Your task to perform on an android device: star an email in the gmail app Image 0: 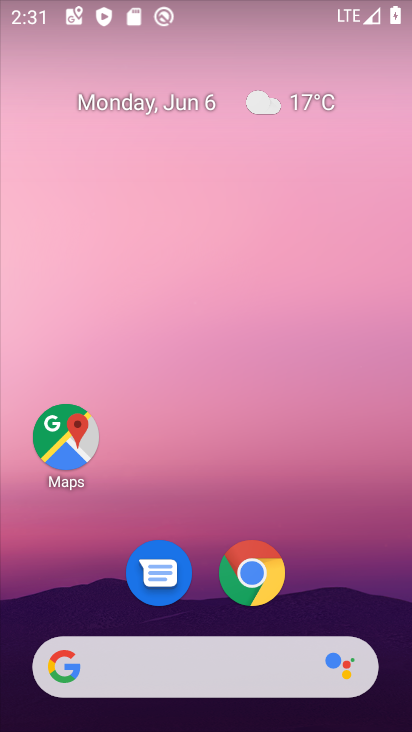
Step 0: drag from (380, 589) to (378, 199)
Your task to perform on an android device: star an email in the gmail app Image 1: 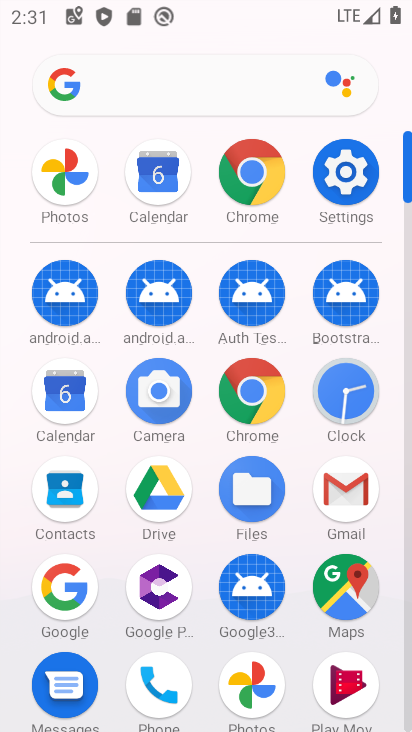
Step 1: click (351, 488)
Your task to perform on an android device: star an email in the gmail app Image 2: 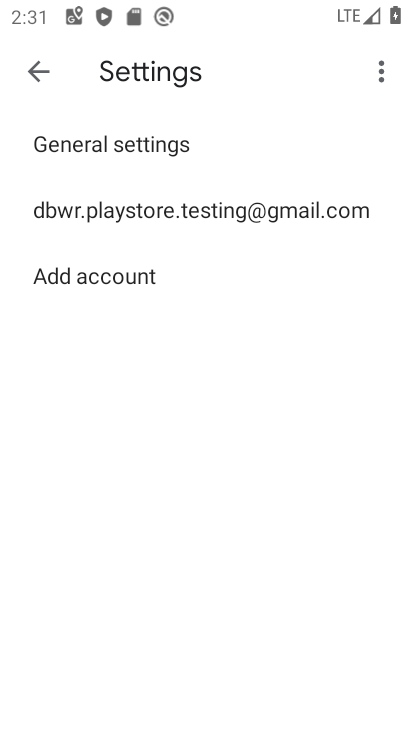
Step 2: press back button
Your task to perform on an android device: star an email in the gmail app Image 3: 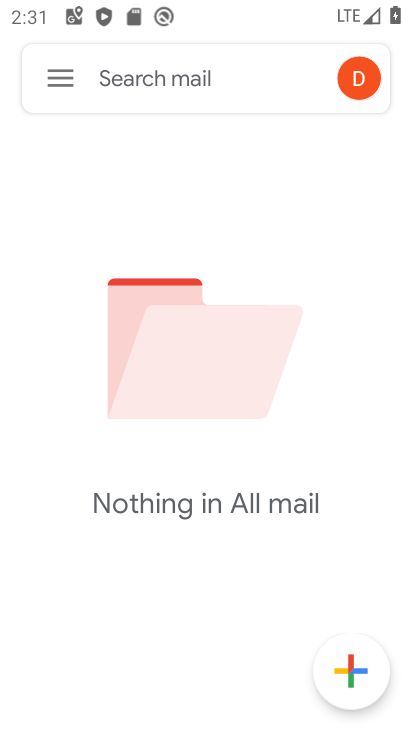
Step 3: click (60, 79)
Your task to perform on an android device: star an email in the gmail app Image 4: 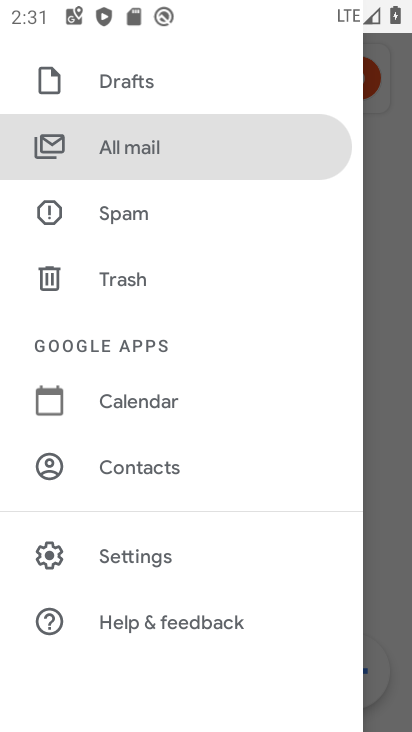
Step 4: drag from (248, 238) to (256, 351)
Your task to perform on an android device: star an email in the gmail app Image 5: 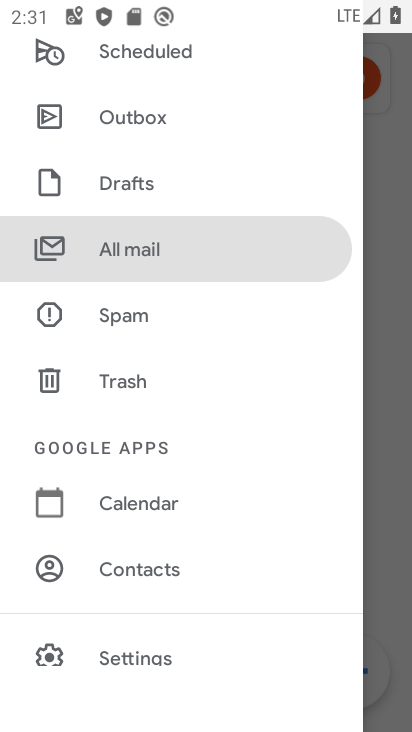
Step 5: drag from (264, 108) to (250, 282)
Your task to perform on an android device: star an email in the gmail app Image 6: 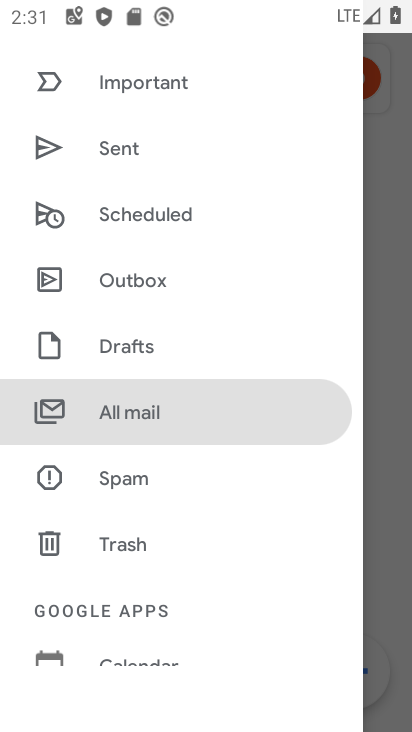
Step 6: drag from (258, 119) to (272, 272)
Your task to perform on an android device: star an email in the gmail app Image 7: 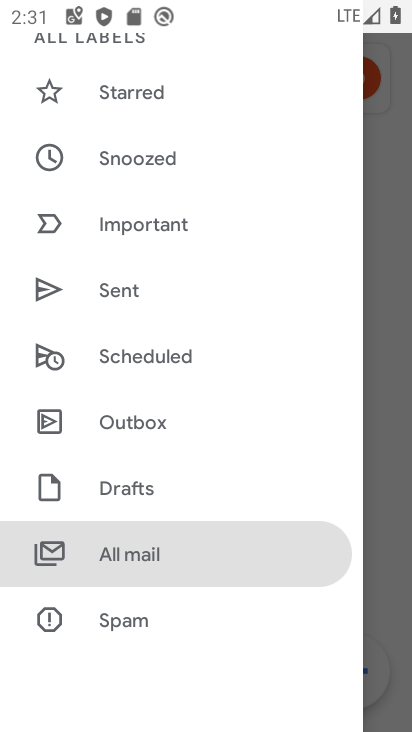
Step 7: drag from (271, 129) to (282, 289)
Your task to perform on an android device: star an email in the gmail app Image 8: 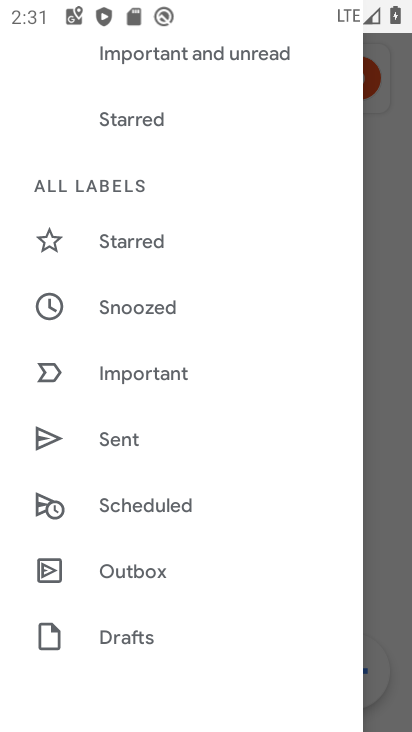
Step 8: drag from (292, 109) to (295, 277)
Your task to perform on an android device: star an email in the gmail app Image 9: 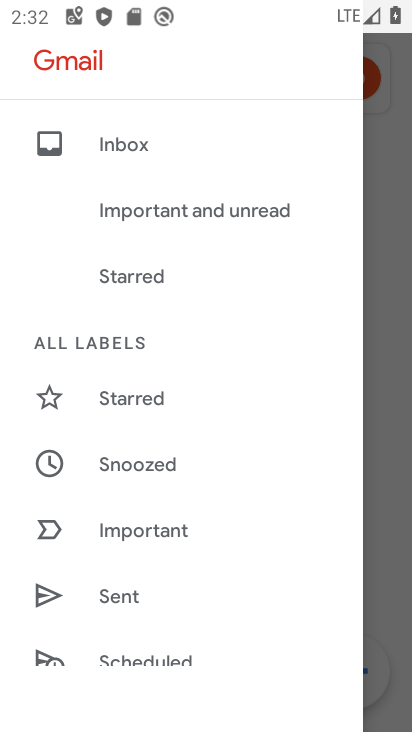
Step 9: click (174, 158)
Your task to perform on an android device: star an email in the gmail app Image 10: 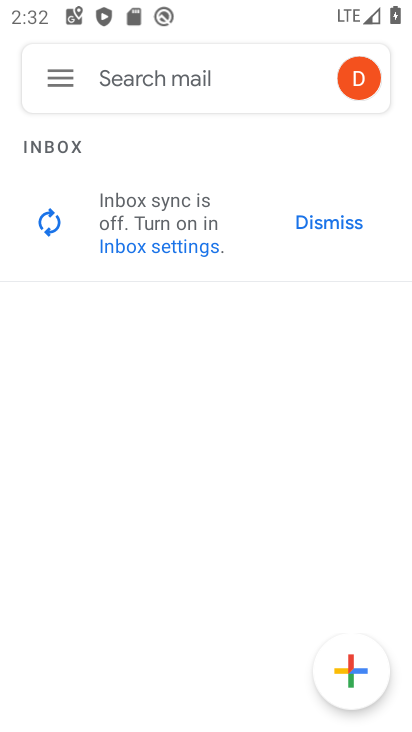
Step 10: task complete